Your task to perform on an android device: open wifi settings Image 0: 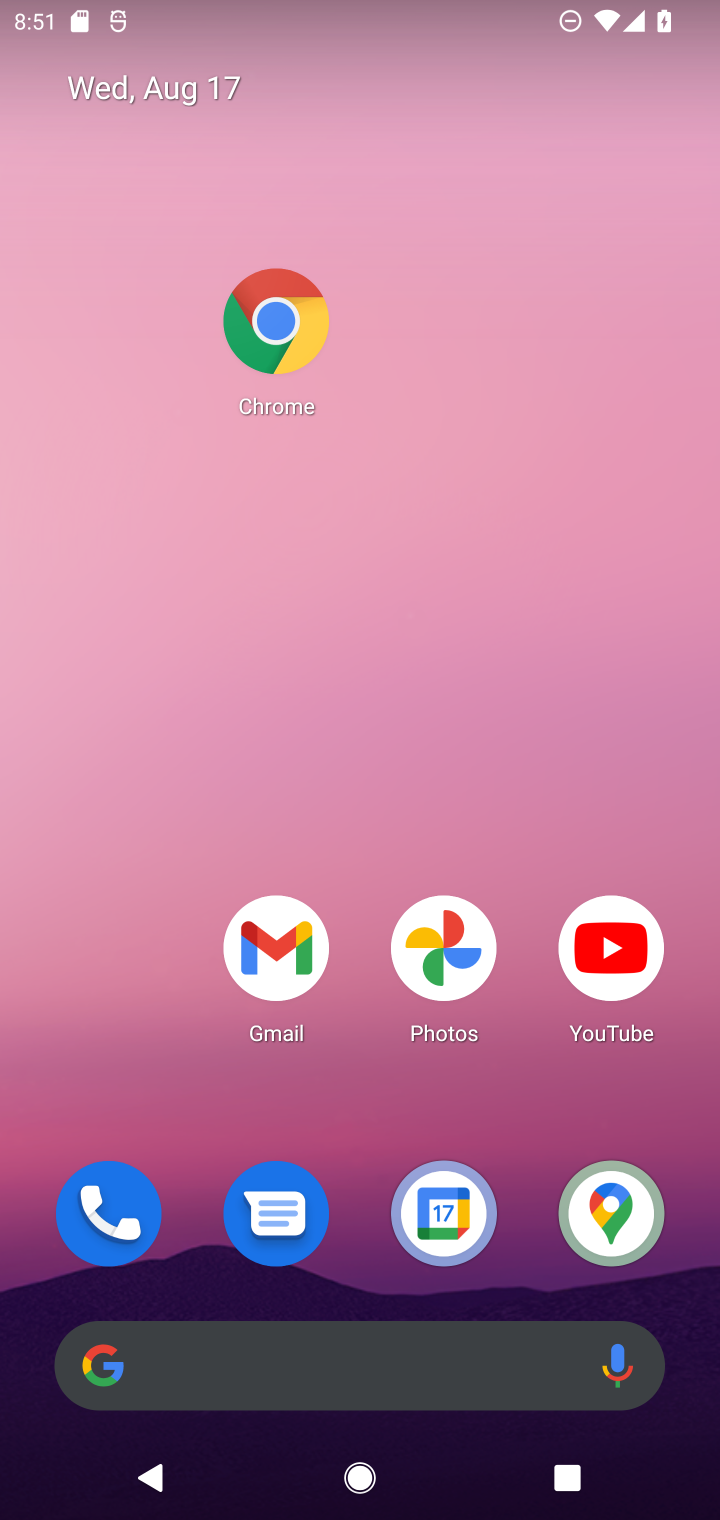
Step 0: drag from (398, 1288) to (547, 213)
Your task to perform on an android device: open wifi settings Image 1: 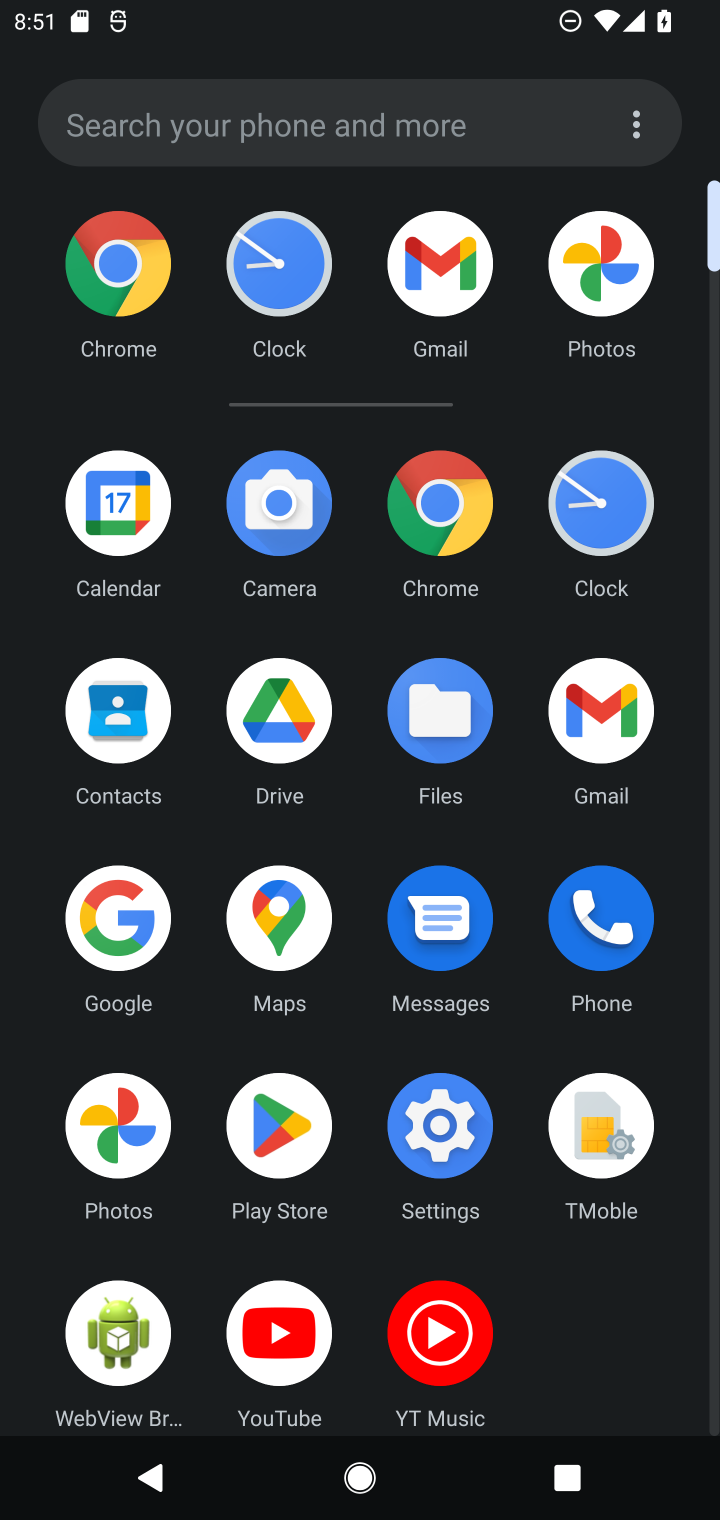
Step 1: click (462, 1106)
Your task to perform on an android device: open wifi settings Image 2: 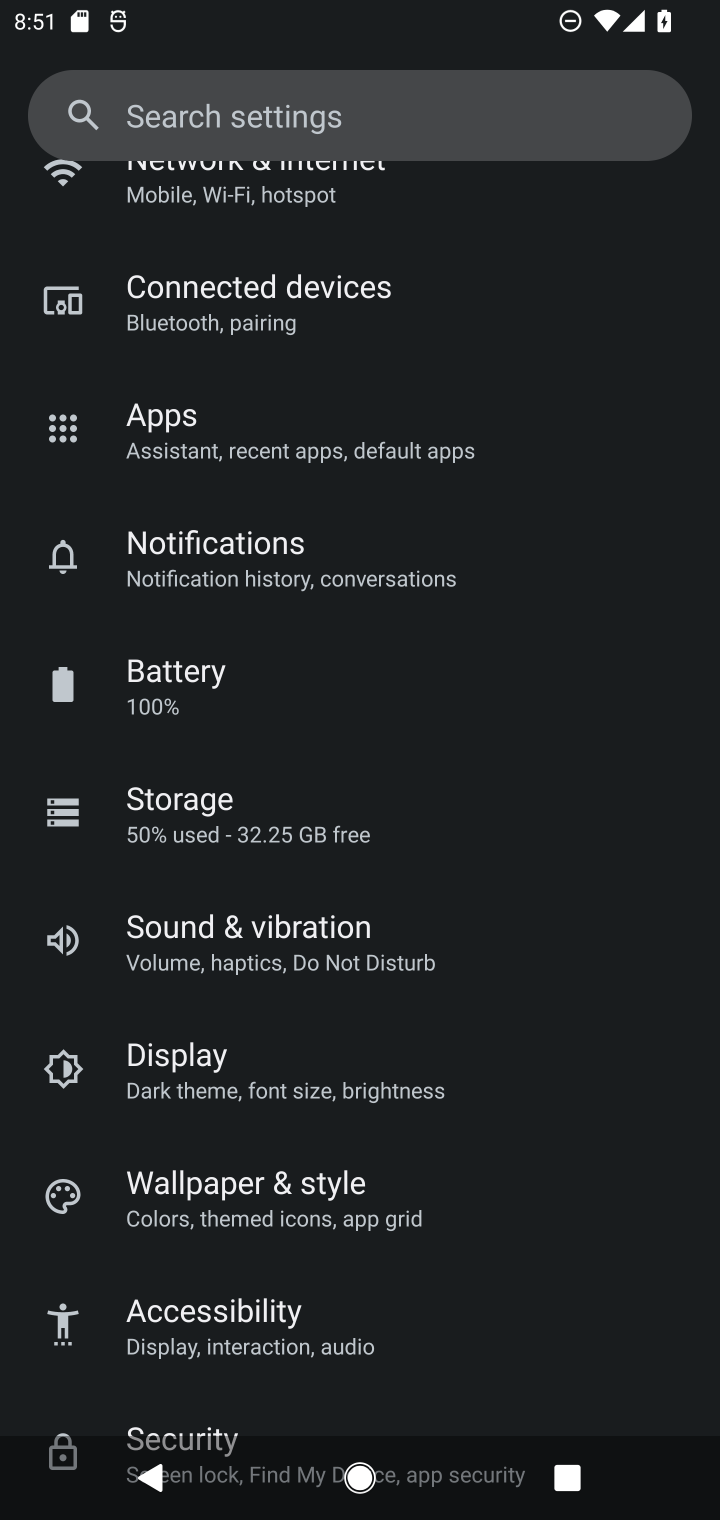
Step 2: click (277, 203)
Your task to perform on an android device: open wifi settings Image 3: 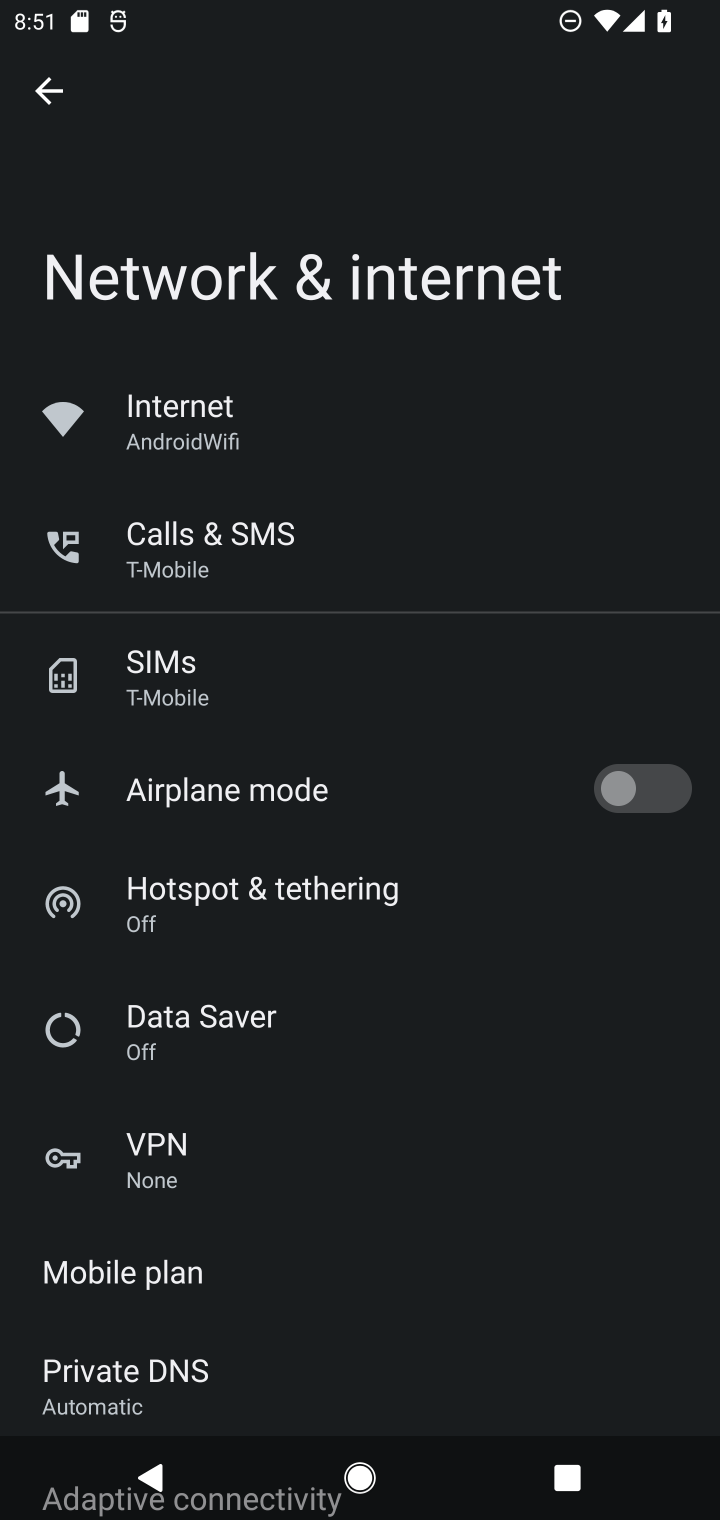
Step 3: task complete